Your task to perform on an android device: toggle wifi Image 0: 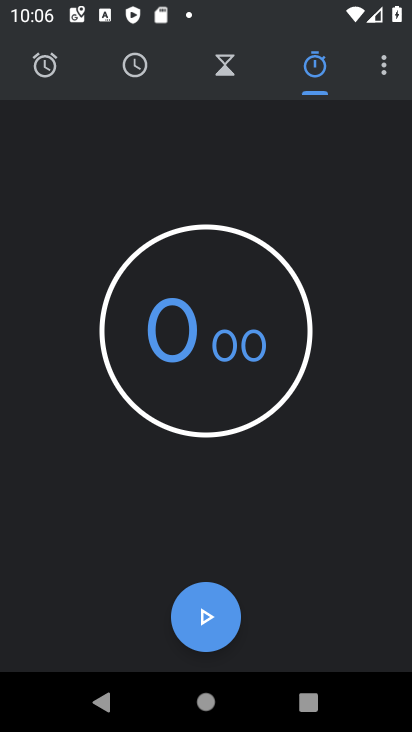
Step 0: press home button
Your task to perform on an android device: toggle wifi Image 1: 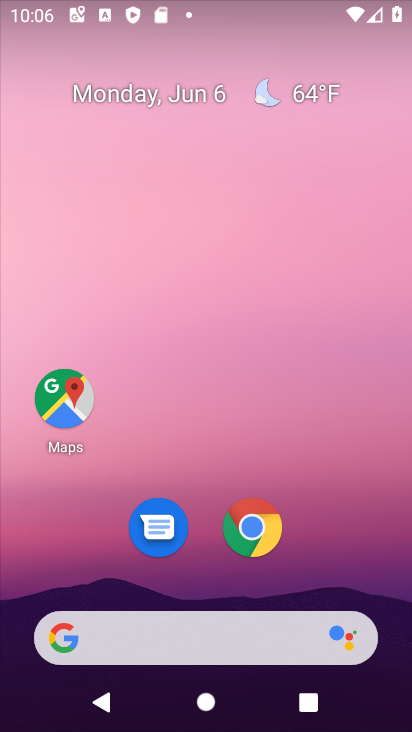
Step 1: drag from (211, 633) to (367, 2)
Your task to perform on an android device: toggle wifi Image 2: 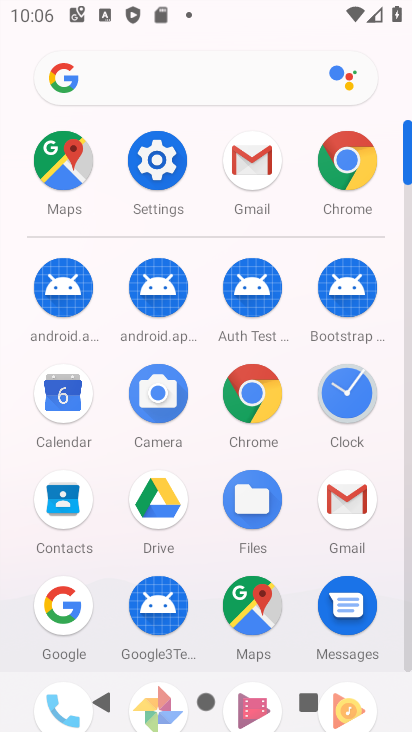
Step 2: click (158, 165)
Your task to perform on an android device: toggle wifi Image 3: 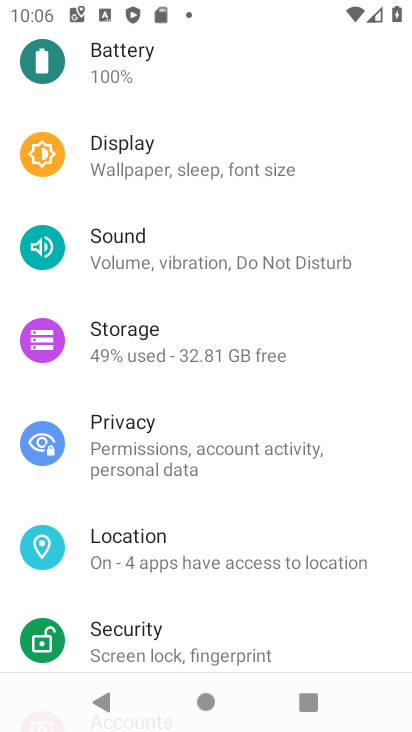
Step 3: click (245, 194)
Your task to perform on an android device: toggle wifi Image 4: 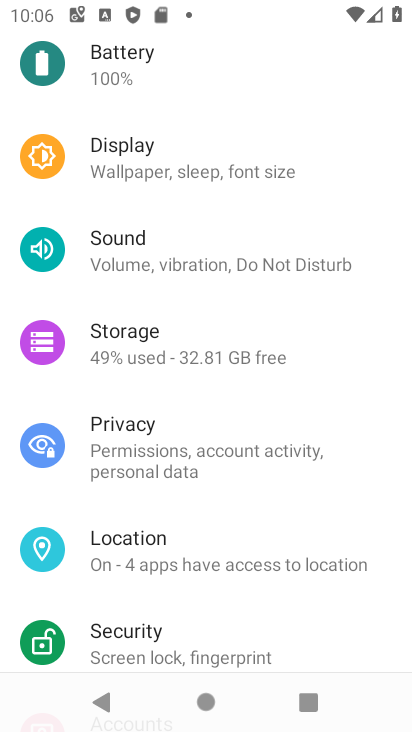
Step 4: drag from (311, 34) to (186, 458)
Your task to perform on an android device: toggle wifi Image 5: 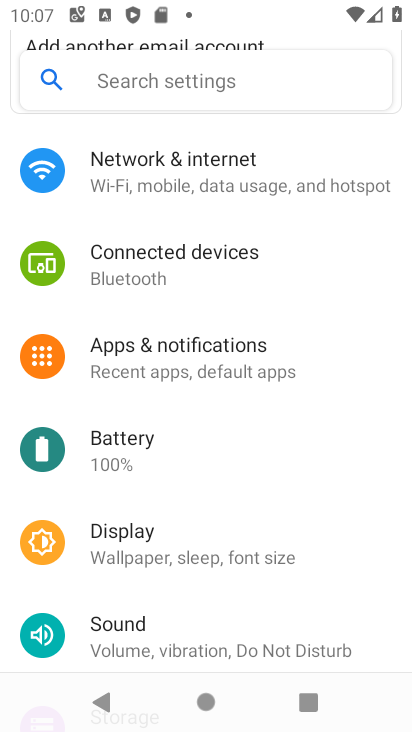
Step 5: drag from (301, 186) to (236, 465)
Your task to perform on an android device: toggle wifi Image 6: 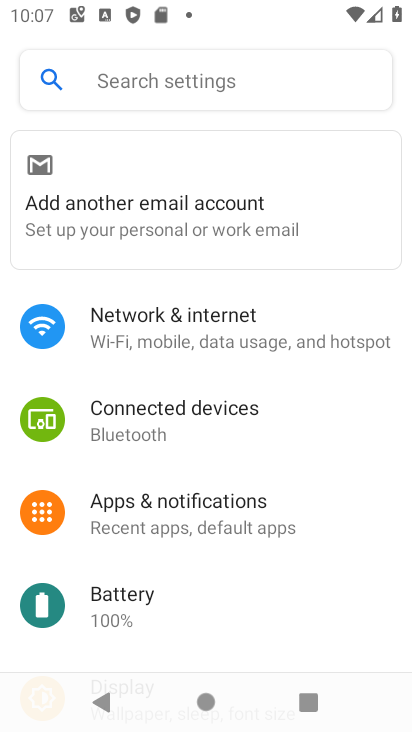
Step 6: click (242, 330)
Your task to perform on an android device: toggle wifi Image 7: 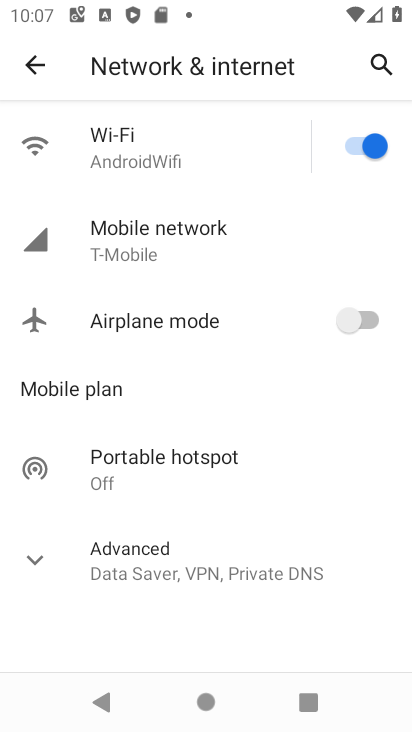
Step 7: click (347, 150)
Your task to perform on an android device: toggle wifi Image 8: 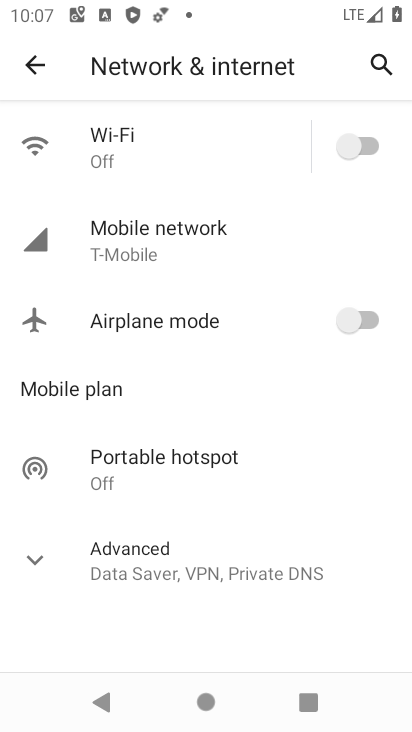
Step 8: task complete